Your task to perform on an android device: Add amazon basics triple a to the cart on costco.com, then select checkout. Image 0: 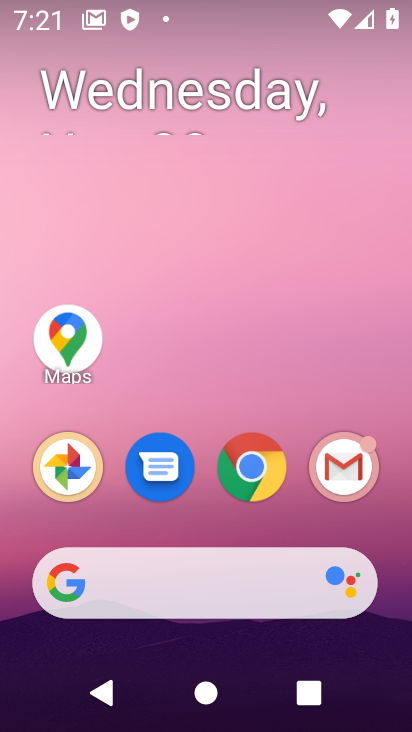
Step 0: click (236, 446)
Your task to perform on an android device: Add amazon basics triple a to the cart on costco.com, then select checkout. Image 1: 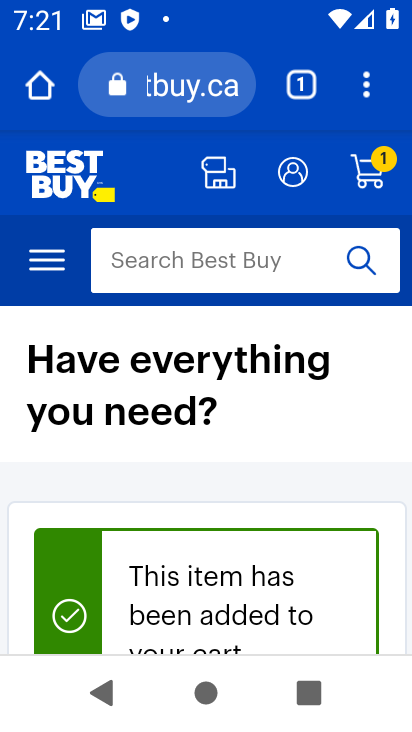
Step 1: click (183, 82)
Your task to perform on an android device: Add amazon basics triple a to the cart on costco.com, then select checkout. Image 2: 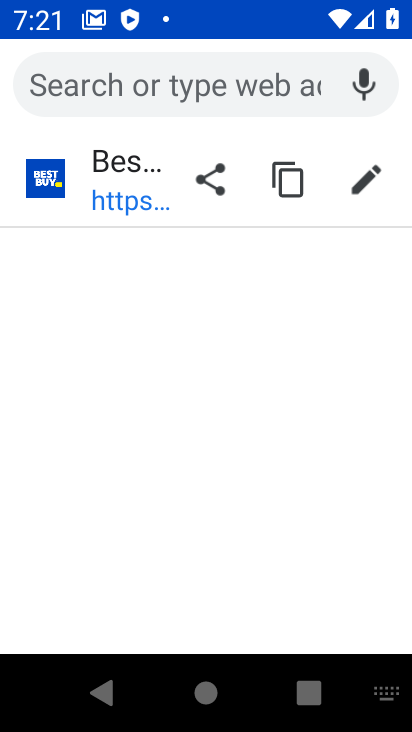
Step 2: type "costco.com"
Your task to perform on an android device: Add amazon basics triple a to the cart on costco.com, then select checkout. Image 3: 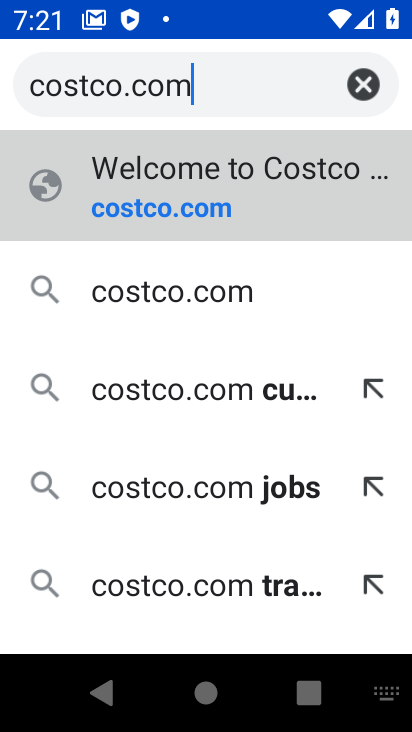
Step 3: click (182, 178)
Your task to perform on an android device: Add amazon basics triple a to the cart on costco.com, then select checkout. Image 4: 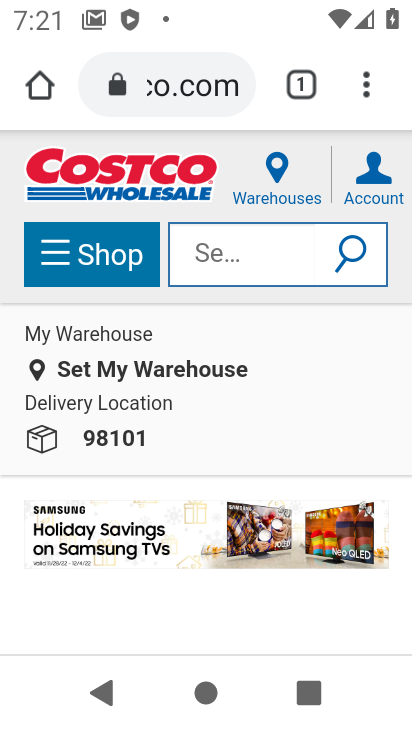
Step 4: click (219, 247)
Your task to perform on an android device: Add amazon basics triple a to the cart on costco.com, then select checkout. Image 5: 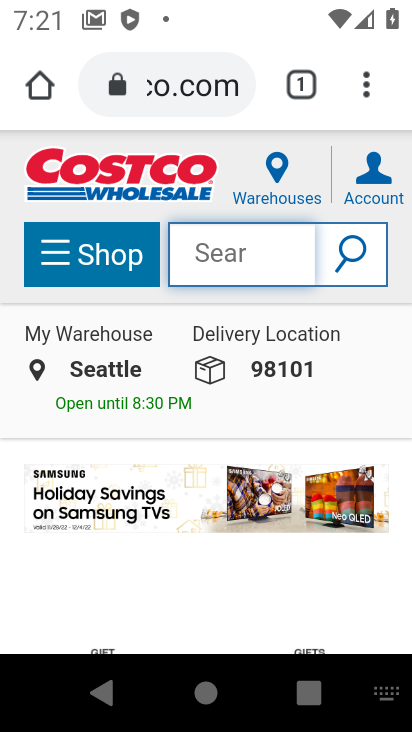
Step 5: type "amazon basic triple a "
Your task to perform on an android device: Add amazon basics triple a to the cart on costco.com, then select checkout. Image 6: 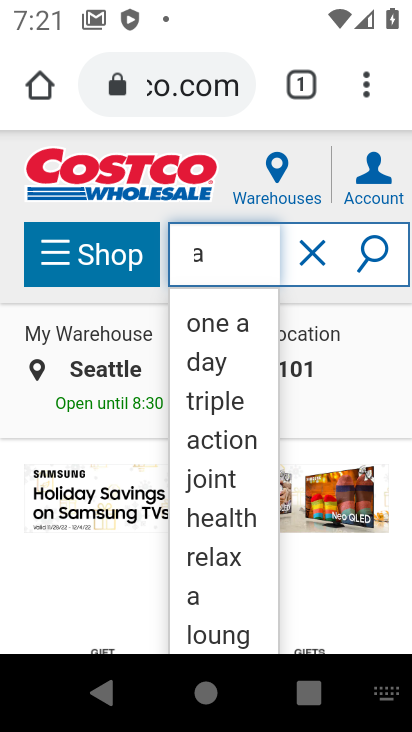
Step 6: click (361, 251)
Your task to perform on an android device: Add amazon basics triple a to the cart on costco.com, then select checkout. Image 7: 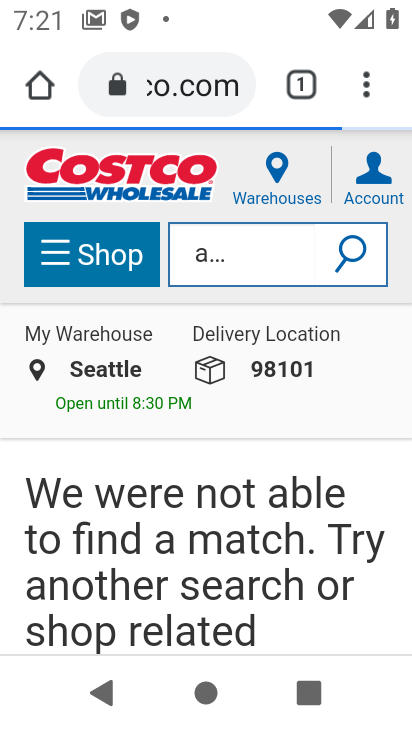
Step 7: task complete